Your task to perform on an android device: open app "Reddit" Image 0: 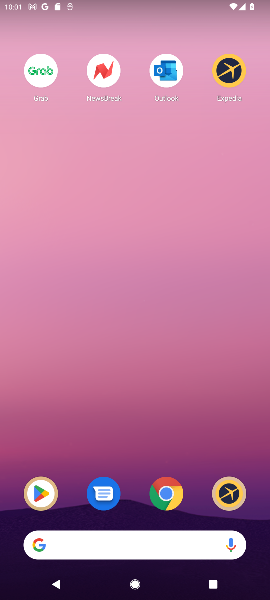
Step 0: click (37, 481)
Your task to perform on an android device: open app "Reddit" Image 1: 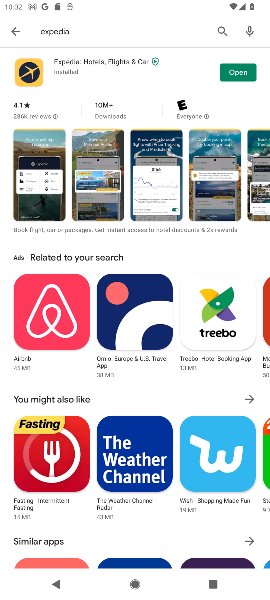
Step 1: task complete